Your task to perform on an android device: Go to location settings Image 0: 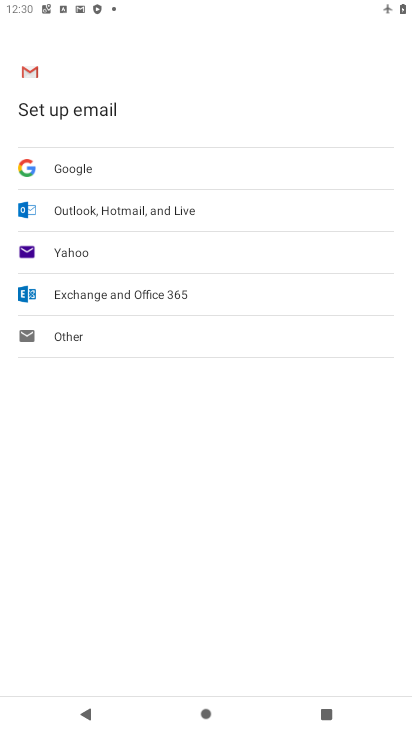
Step 0: press home button
Your task to perform on an android device: Go to location settings Image 1: 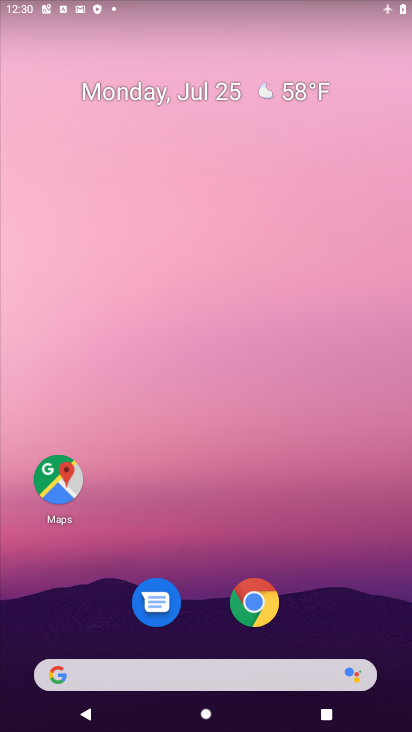
Step 1: drag from (194, 625) to (209, 150)
Your task to perform on an android device: Go to location settings Image 2: 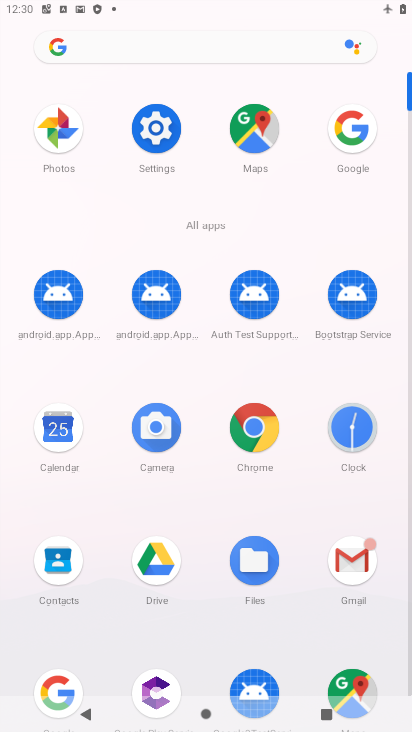
Step 2: click (158, 133)
Your task to perform on an android device: Go to location settings Image 3: 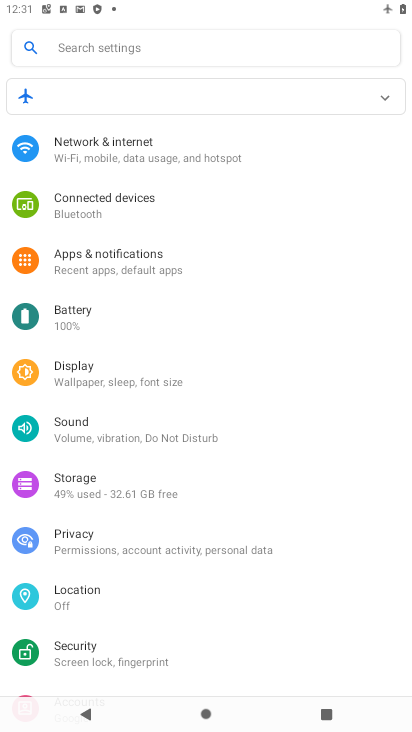
Step 3: click (98, 600)
Your task to perform on an android device: Go to location settings Image 4: 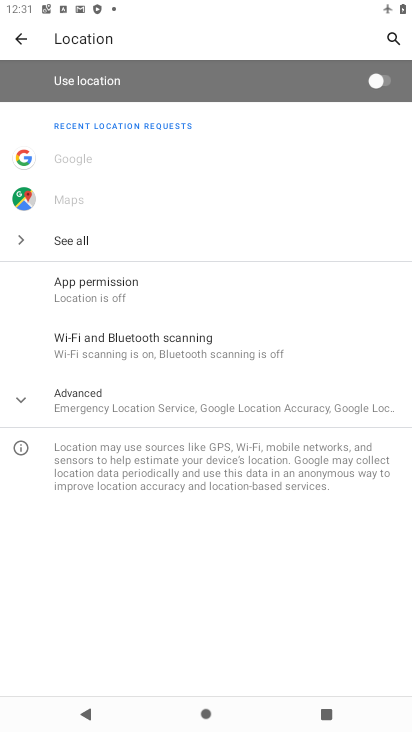
Step 4: task complete